Your task to perform on an android device: Go to battery settings Image 0: 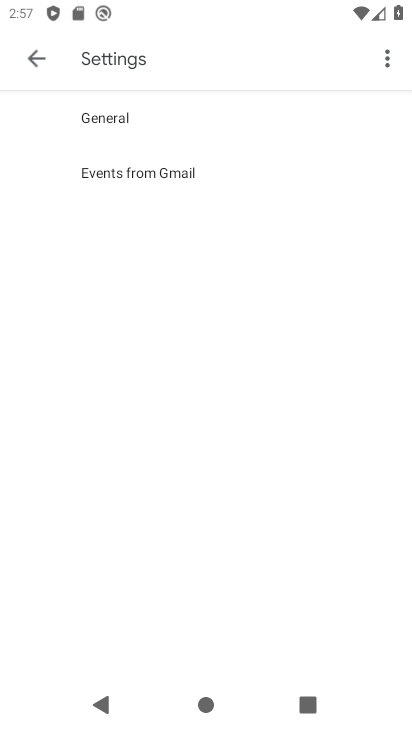
Step 0: press home button
Your task to perform on an android device: Go to battery settings Image 1: 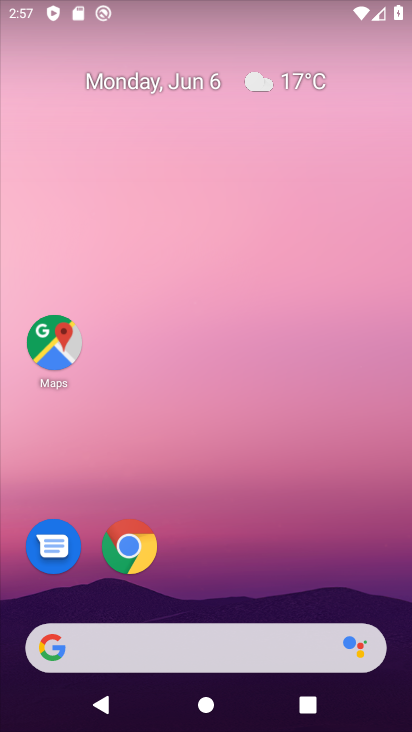
Step 1: drag from (306, 577) to (342, 71)
Your task to perform on an android device: Go to battery settings Image 2: 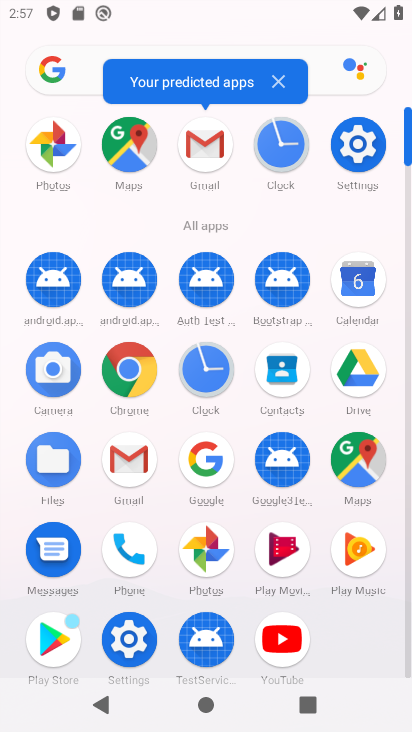
Step 2: click (362, 147)
Your task to perform on an android device: Go to battery settings Image 3: 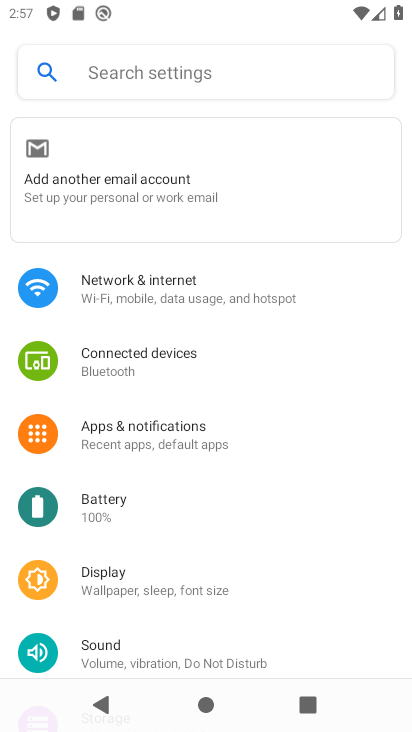
Step 3: click (100, 519)
Your task to perform on an android device: Go to battery settings Image 4: 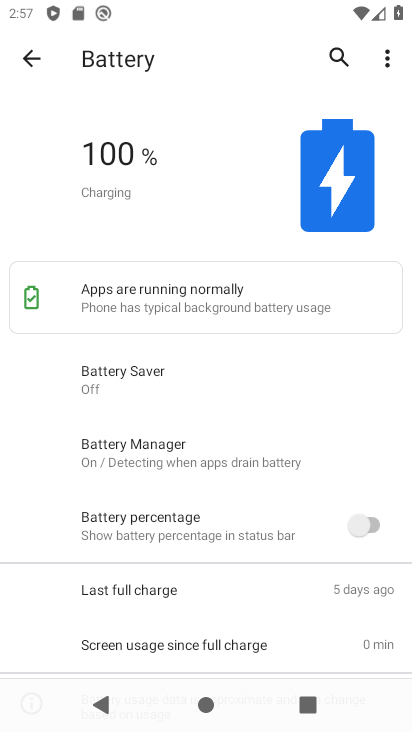
Step 4: task complete